Your task to perform on an android device: Open settings on Google Maps Image 0: 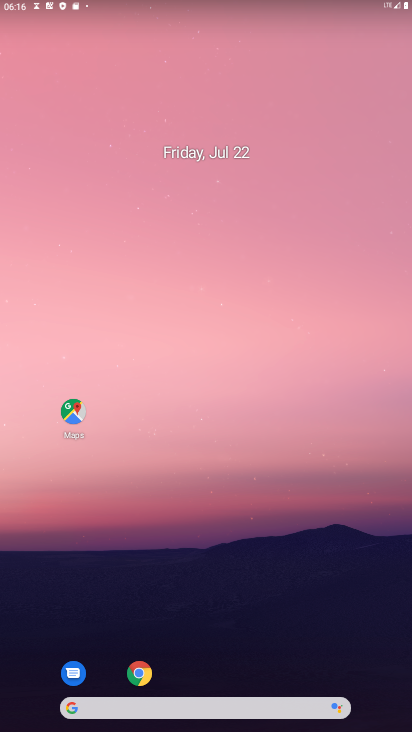
Step 0: press home button
Your task to perform on an android device: Open settings on Google Maps Image 1: 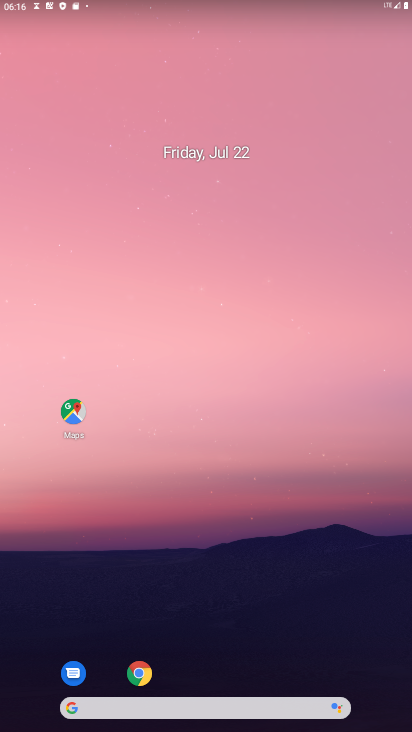
Step 1: drag from (256, 663) to (376, 223)
Your task to perform on an android device: Open settings on Google Maps Image 2: 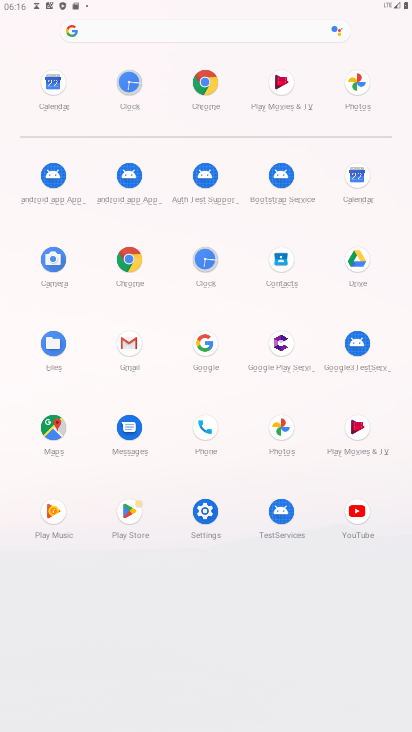
Step 2: click (41, 426)
Your task to perform on an android device: Open settings on Google Maps Image 3: 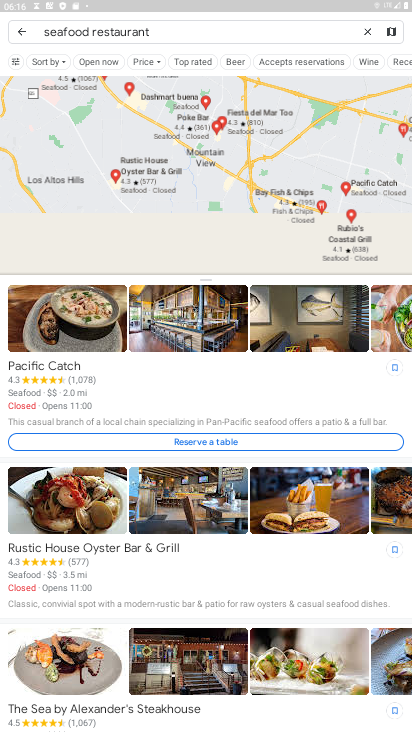
Step 3: click (35, 29)
Your task to perform on an android device: Open settings on Google Maps Image 4: 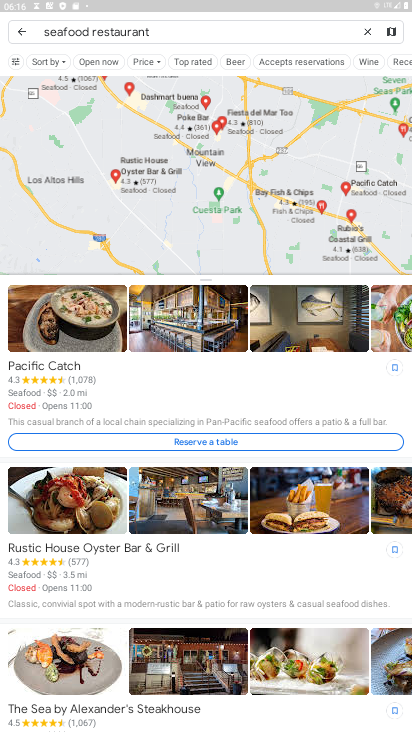
Step 4: click (21, 31)
Your task to perform on an android device: Open settings on Google Maps Image 5: 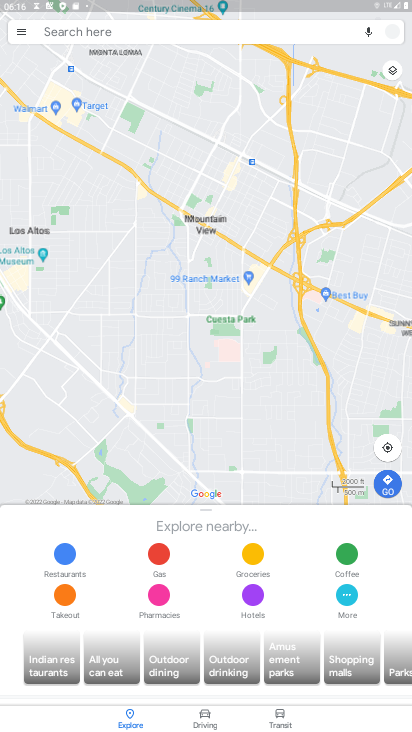
Step 5: click (21, 31)
Your task to perform on an android device: Open settings on Google Maps Image 6: 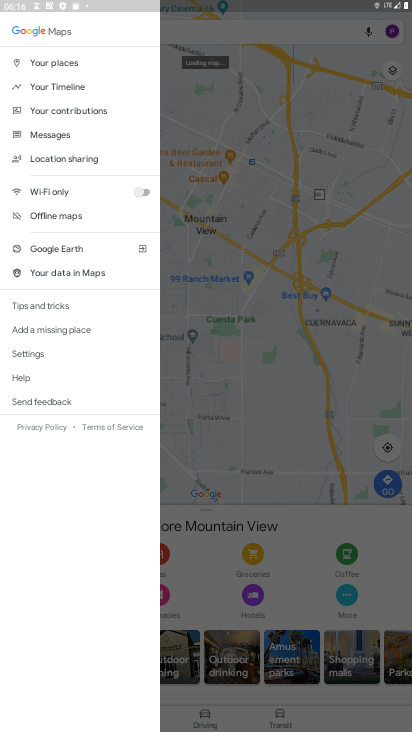
Step 6: click (37, 350)
Your task to perform on an android device: Open settings on Google Maps Image 7: 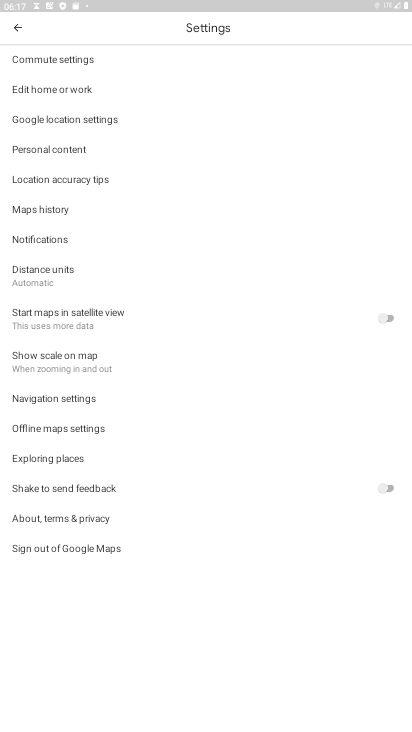
Step 7: task complete